Your task to perform on an android device: check out phone information Image 0: 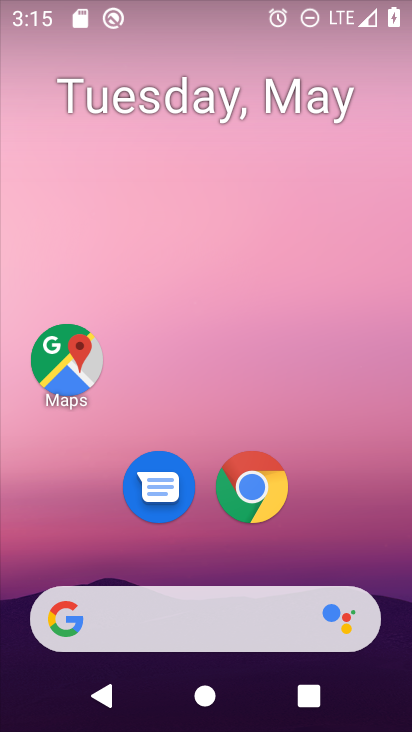
Step 0: drag from (14, 721) to (295, 159)
Your task to perform on an android device: check out phone information Image 1: 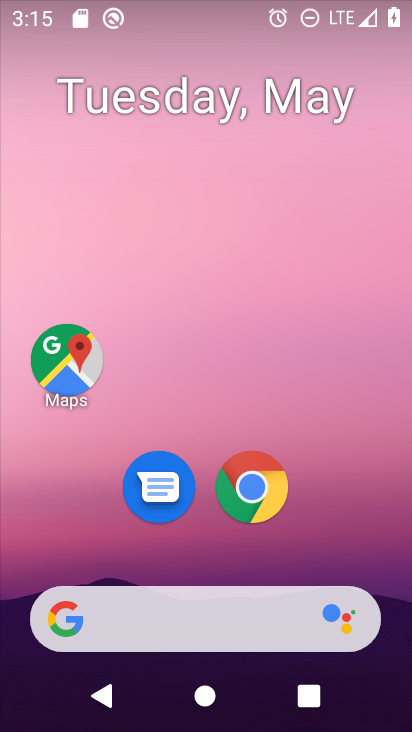
Step 1: drag from (34, 580) to (272, 72)
Your task to perform on an android device: check out phone information Image 2: 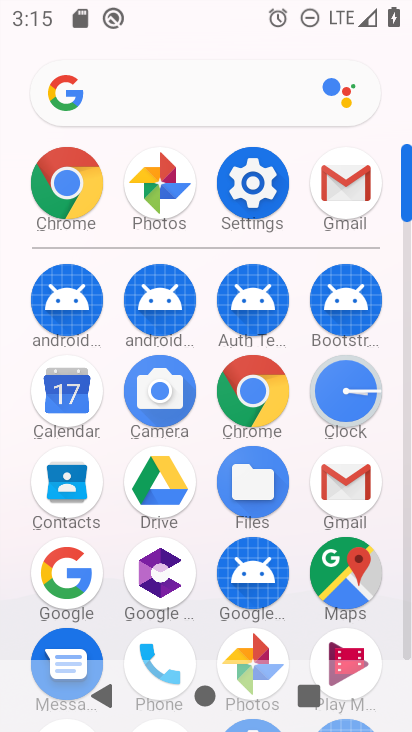
Step 2: click (156, 639)
Your task to perform on an android device: check out phone information Image 3: 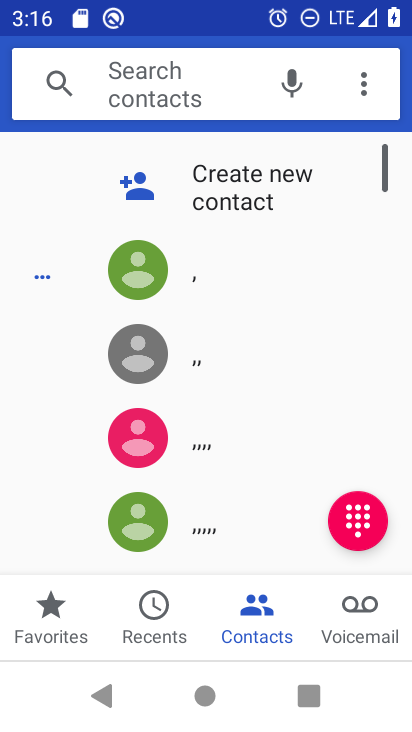
Step 3: task complete